Your task to perform on an android device: change notifications settings Image 0: 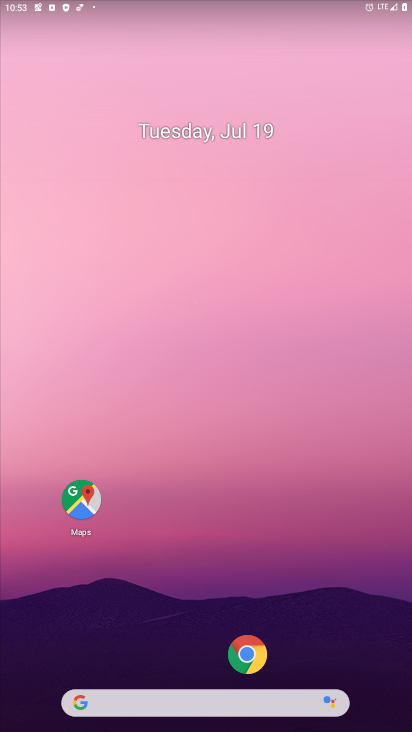
Step 0: click (186, 53)
Your task to perform on an android device: change notifications settings Image 1: 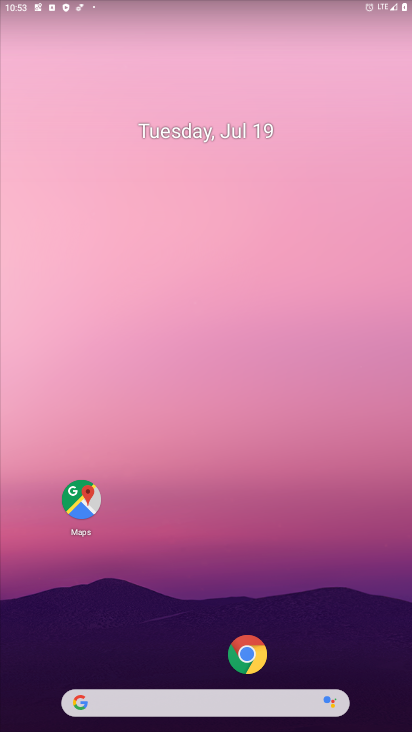
Step 1: drag from (184, 628) to (313, 244)
Your task to perform on an android device: change notifications settings Image 2: 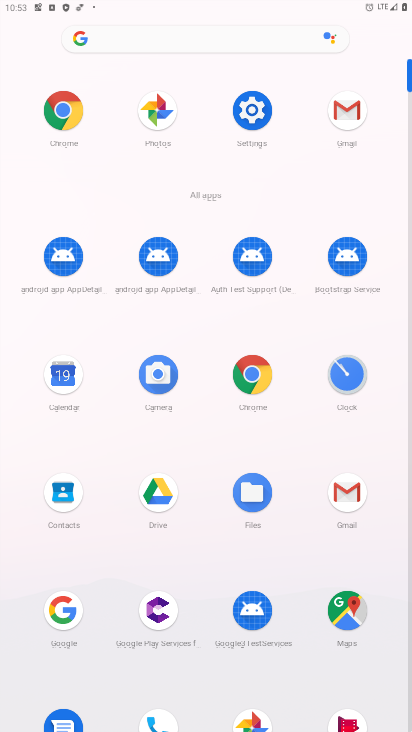
Step 2: click (250, 113)
Your task to perform on an android device: change notifications settings Image 3: 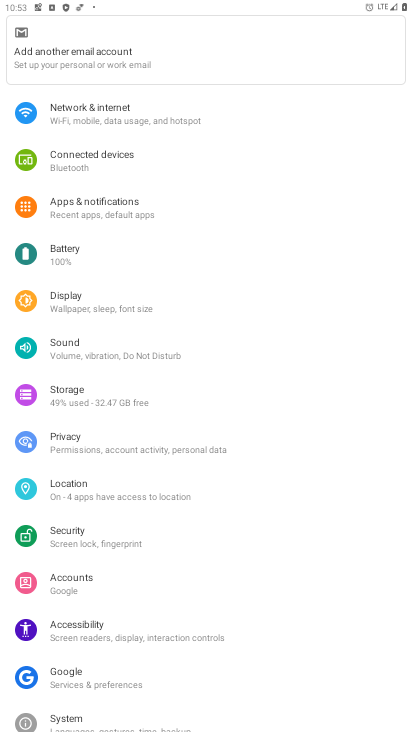
Step 3: click (90, 197)
Your task to perform on an android device: change notifications settings Image 4: 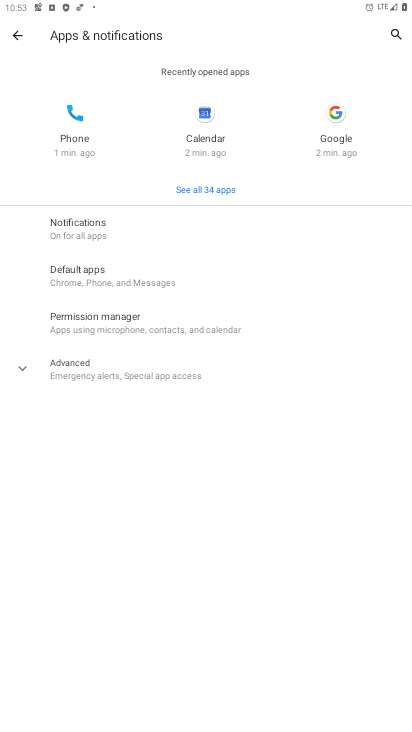
Step 4: task complete